Your task to perform on an android device: check out phone information Image 0: 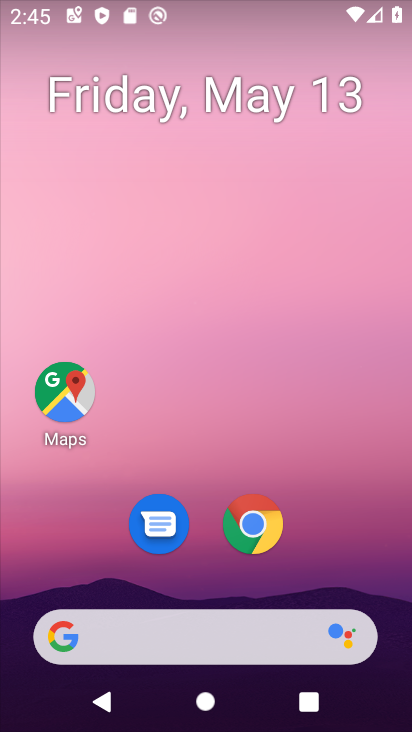
Step 0: drag from (346, 528) to (253, 23)
Your task to perform on an android device: check out phone information Image 1: 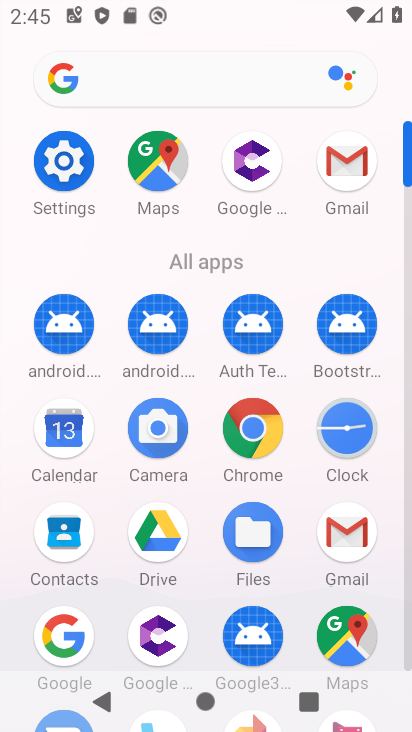
Step 1: drag from (203, 426) to (224, 178)
Your task to perform on an android device: check out phone information Image 2: 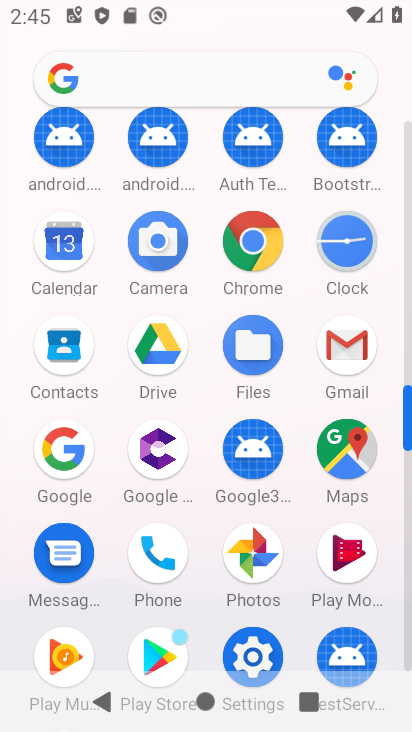
Step 2: click (174, 546)
Your task to perform on an android device: check out phone information Image 3: 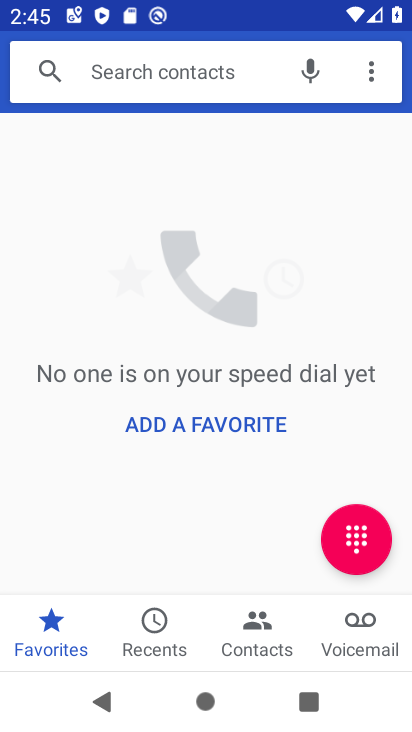
Step 3: click (370, 71)
Your task to perform on an android device: check out phone information Image 4: 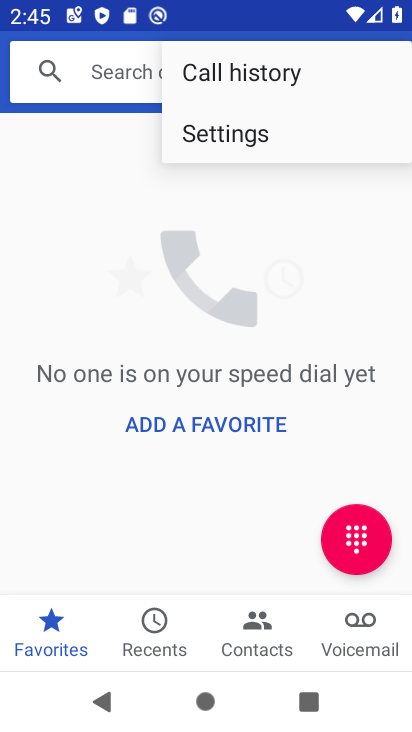
Step 4: click (304, 128)
Your task to perform on an android device: check out phone information Image 5: 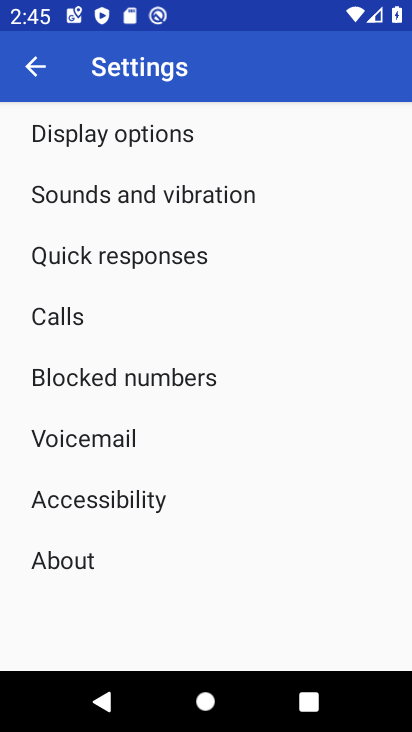
Step 5: click (71, 563)
Your task to perform on an android device: check out phone information Image 6: 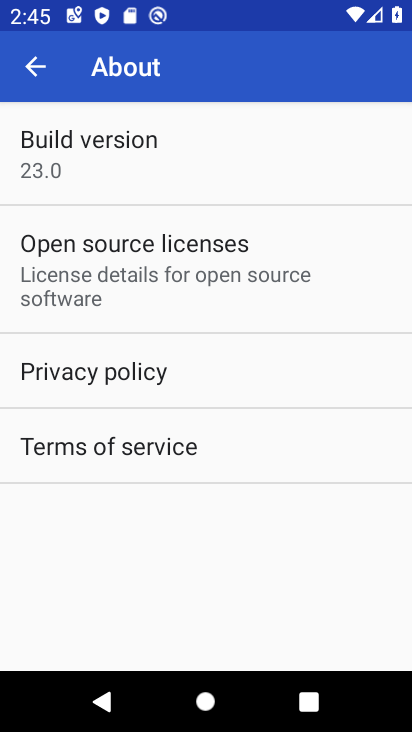
Step 6: task complete